Your task to perform on an android device: open a new tab in the chrome app Image 0: 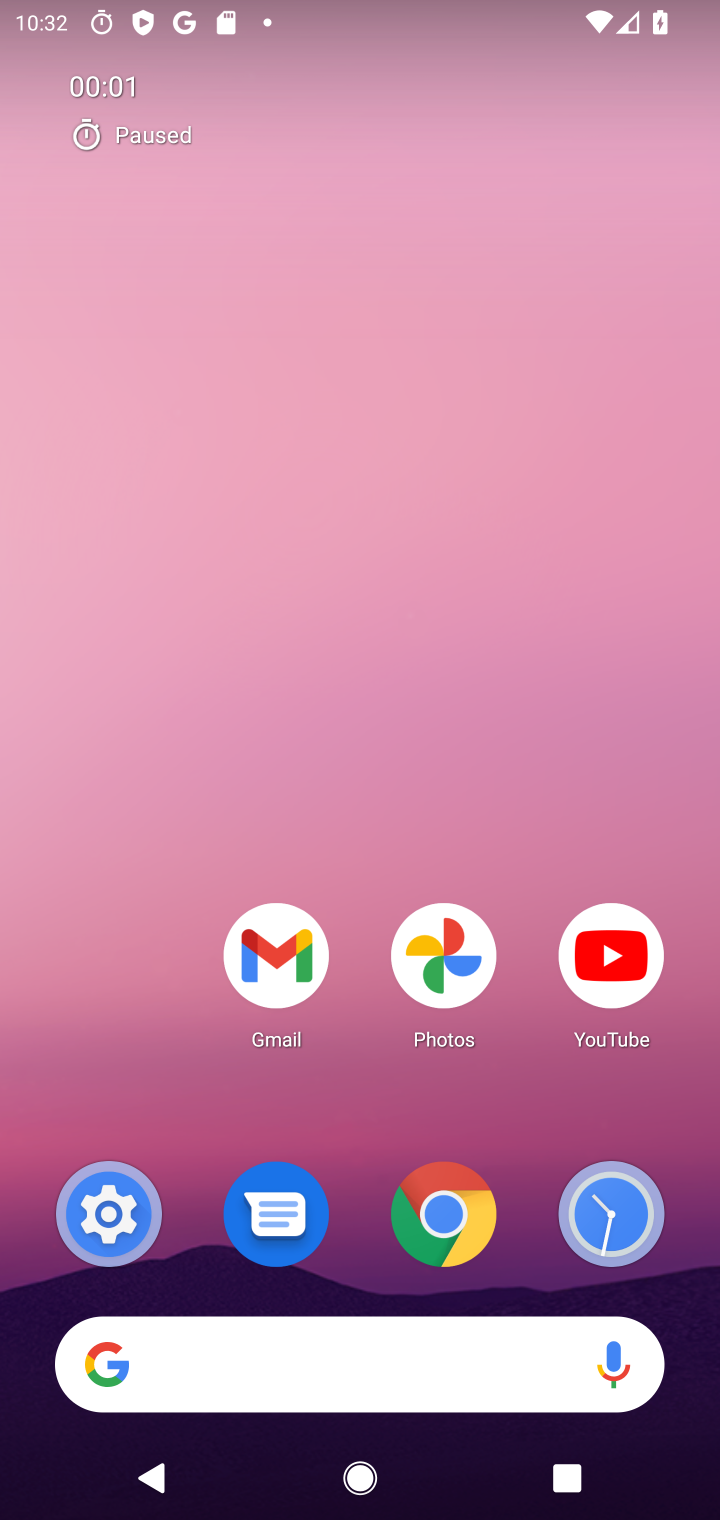
Step 0: click (439, 1198)
Your task to perform on an android device: open a new tab in the chrome app Image 1: 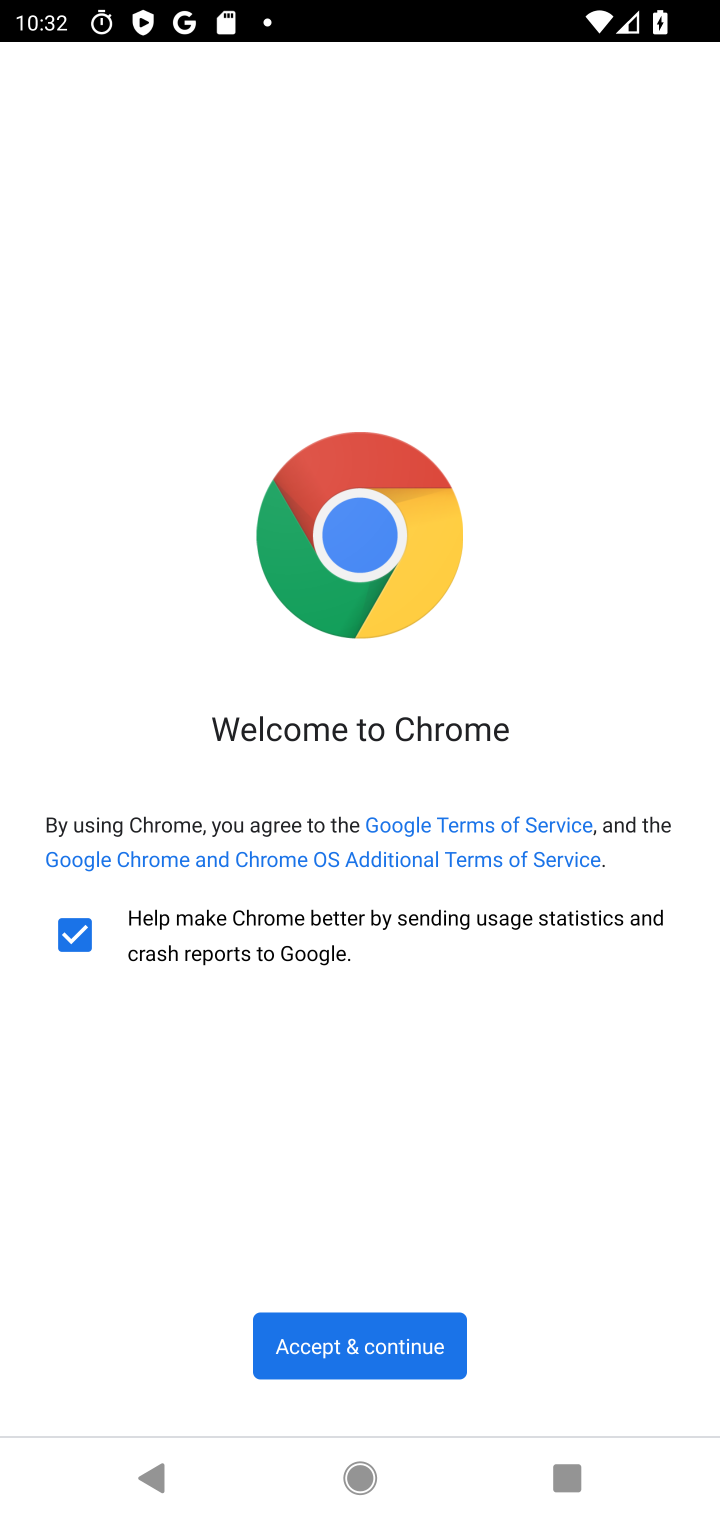
Step 1: click (398, 1336)
Your task to perform on an android device: open a new tab in the chrome app Image 2: 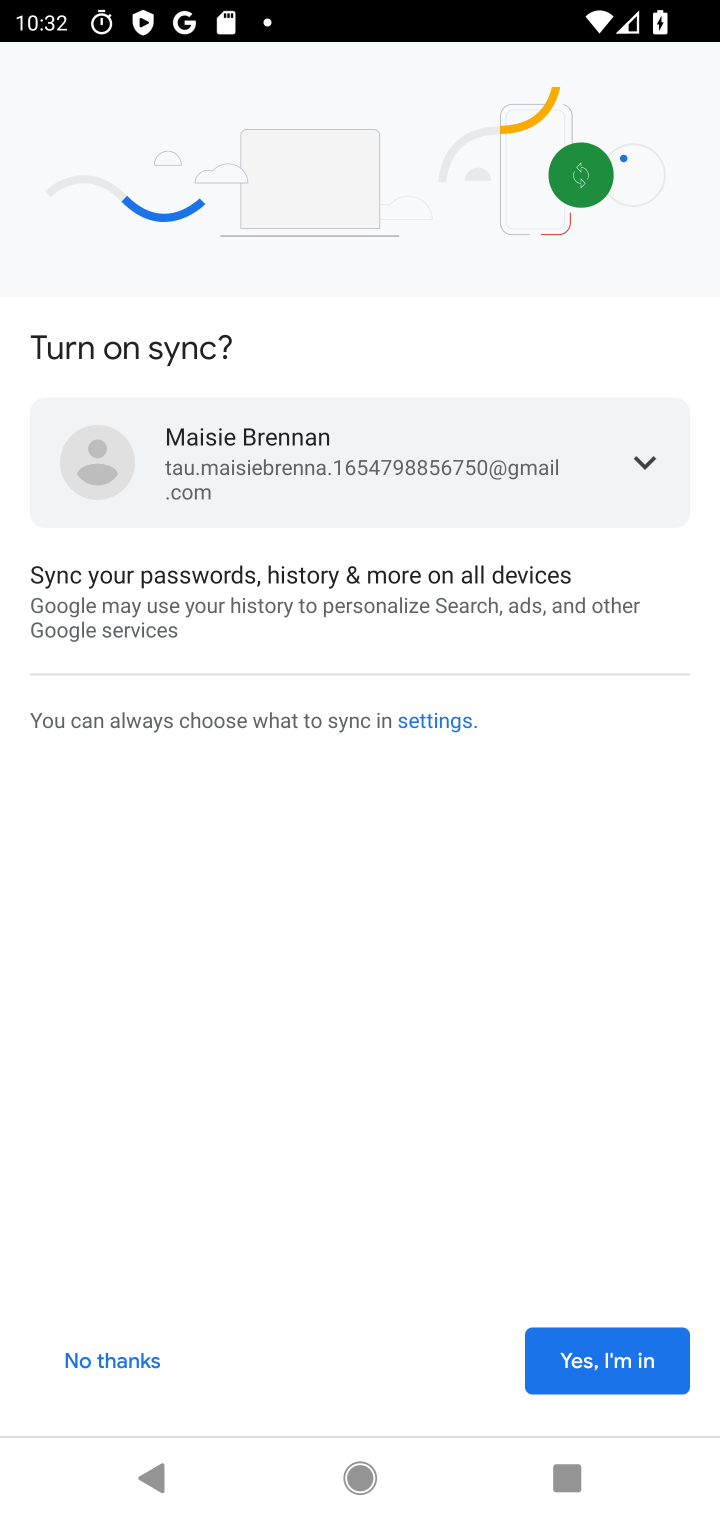
Step 2: click (61, 1363)
Your task to perform on an android device: open a new tab in the chrome app Image 3: 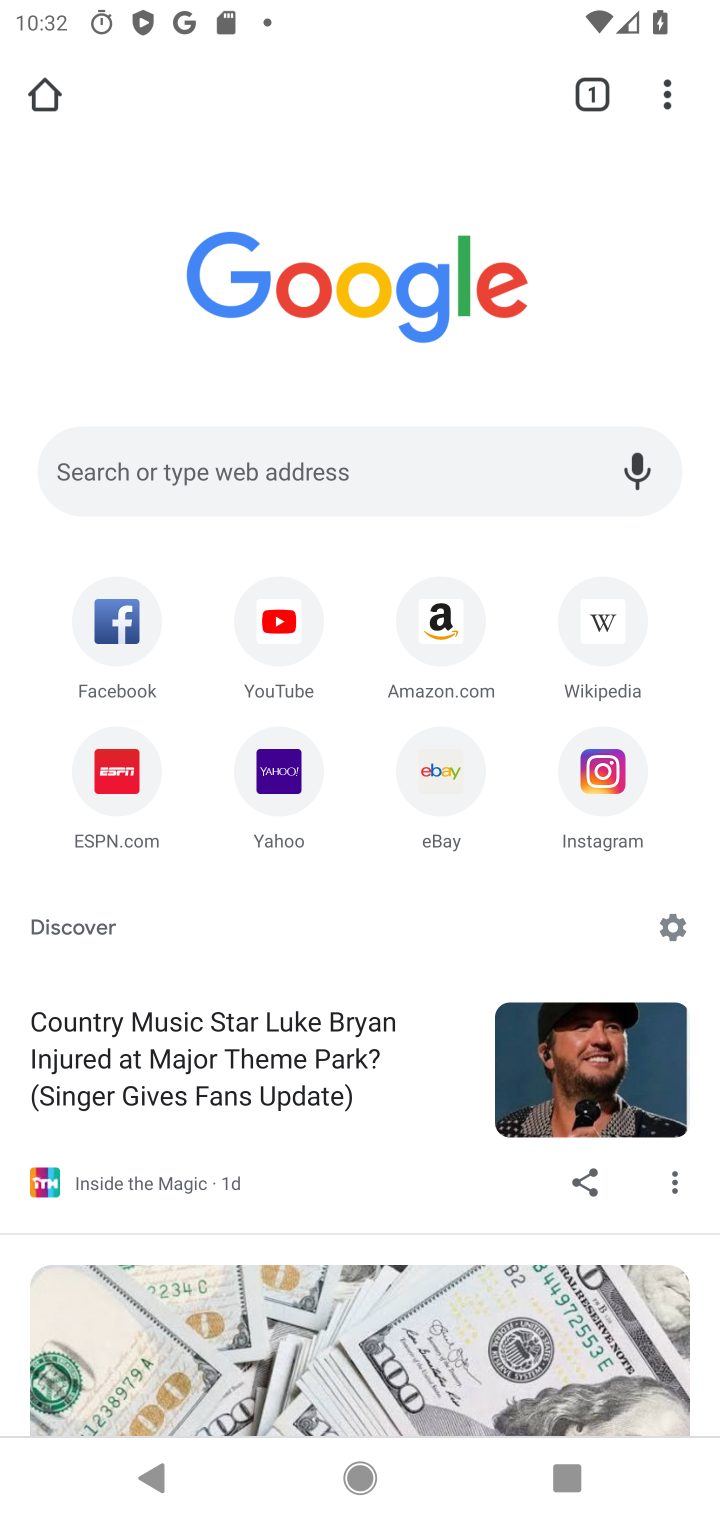
Step 3: click (671, 92)
Your task to perform on an android device: open a new tab in the chrome app Image 4: 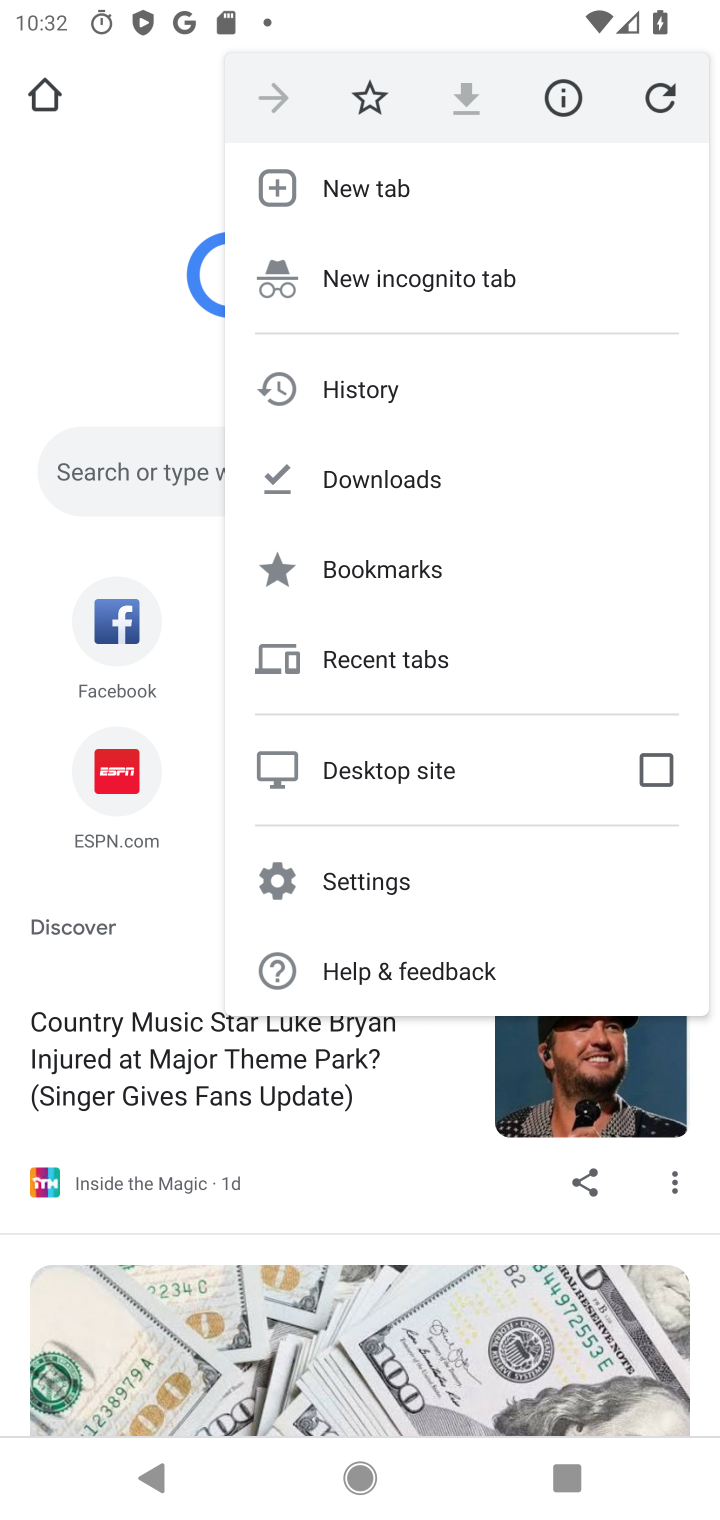
Step 4: click (320, 185)
Your task to perform on an android device: open a new tab in the chrome app Image 5: 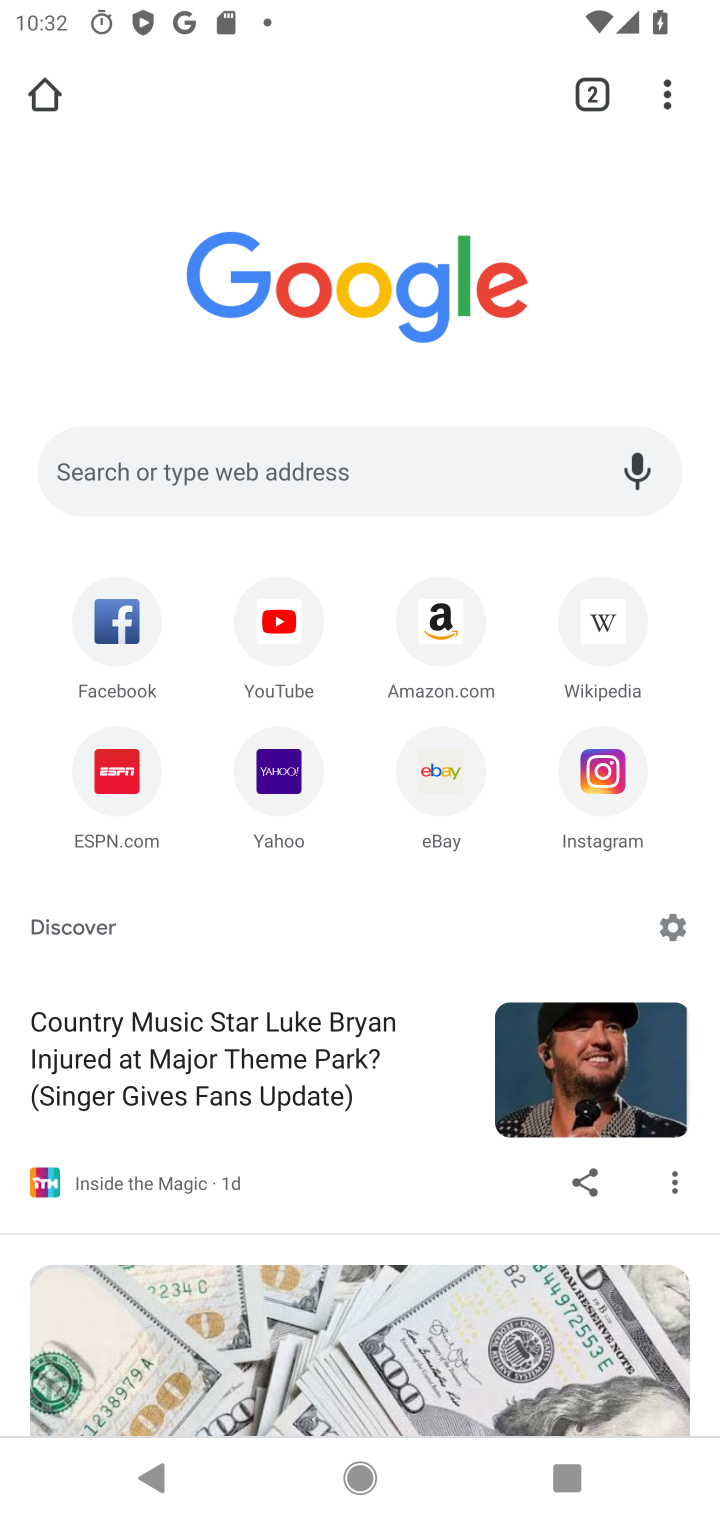
Step 5: task complete